Your task to perform on an android device: Search for the best coffee tables on Crate & Barrel Image 0: 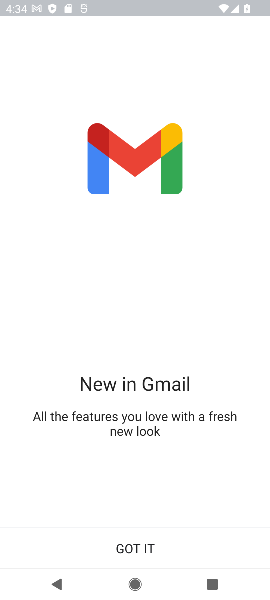
Step 0: press home button
Your task to perform on an android device: Search for the best coffee tables on Crate & Barrel Image 1: 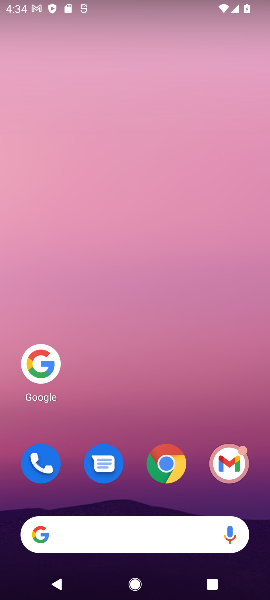
Step 1: click (48, 344)
Your task to perform on an android device: Search for the best coffee tables on Crate & Barrel Image 2: 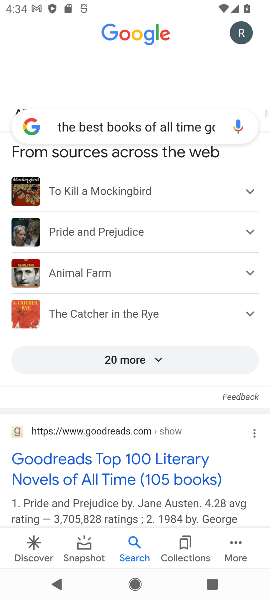
Step 2: click (145, 122)
Your task to perform on an android device: Search for the best coffee tables on Crate & Barrel Image 3: 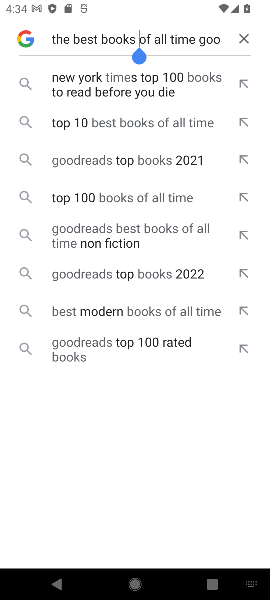
Step 3: click (257, 31)
Your task to perform on an android device: Search for the best coffee tables on Crate & Barrel Image 4: 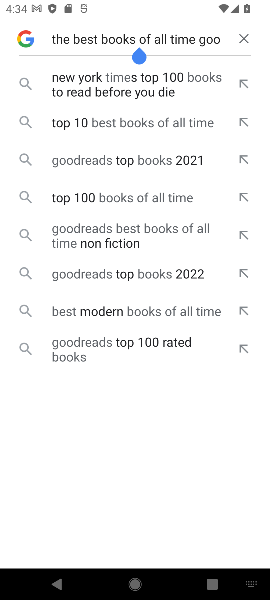
Step 4: click (250, 34)
Your task to perform on an android device: Search for the best coffee tables on Crate & Barrel Image 5: 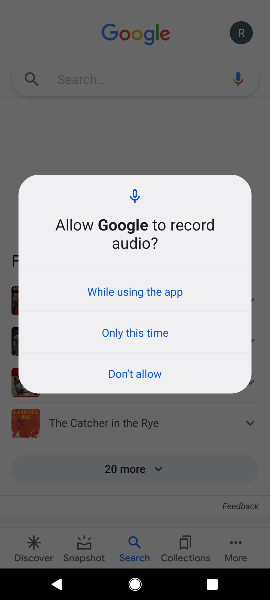
Step 5: click (117, 127)
Your task to perform on an android device: Search for the best coffee tables on Crate & Barrel Image 6: 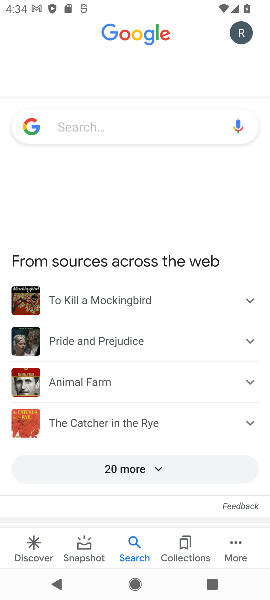
Step 6: click (180, 113)
Your task to perform on an android device: Search for the best coffee tables on Crate & Barrel Image 7: 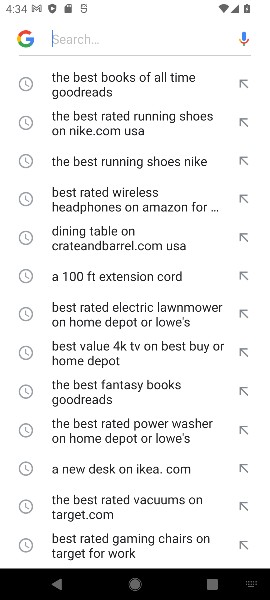
Step 7: type "the best books of all time on Goodreads "
Your task to perform on an android device: Search for the best coffee tables on Crate & Barrel Image 8: 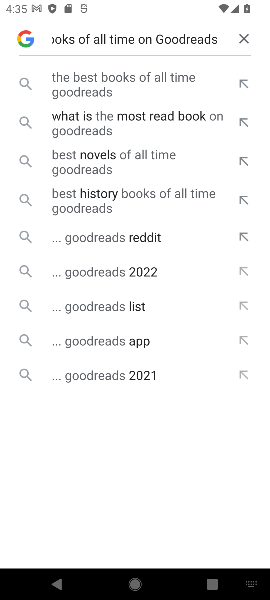
Step 8: click (90, 78)
Your task to perform on an android device: Search for the best coffee tables on Crate & Barrel Image 9: 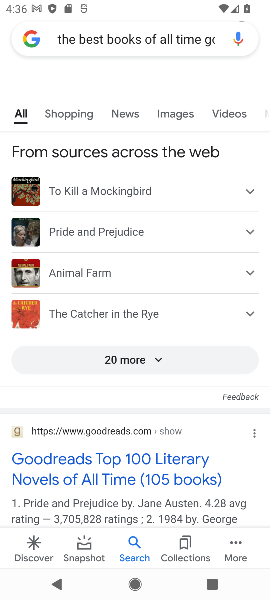
Step 9: task complete